Your task to perform on an android device: Go to Yahoo.com Image 0: 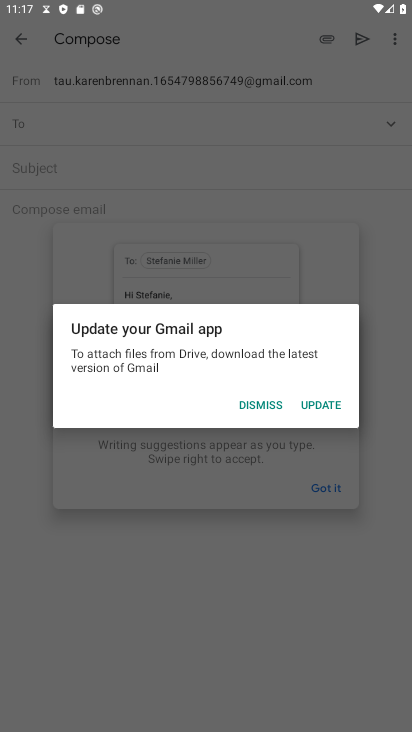
Step 0: press home button
Your task to perform on an android device: Go to Yahoo.com Image 1: 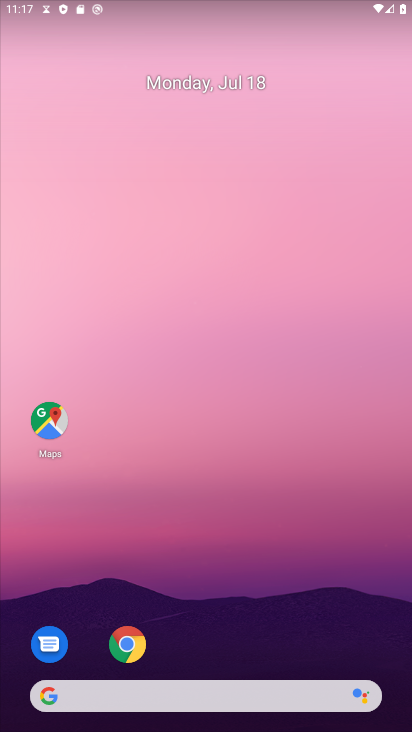
Step 1: drag from (194, 655) to (207, 196)
Your task to perform on an android device: Go to Yahoo.com Image 2: 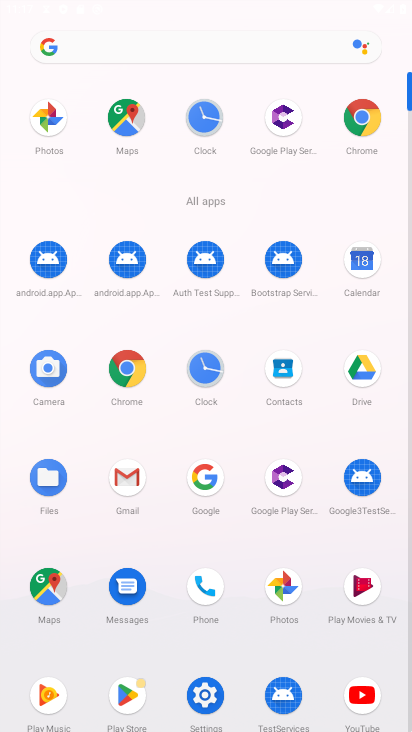
Step 2: click (130, 371)
Your task to perform on an android device: Go to Yahoo.com Image 3: 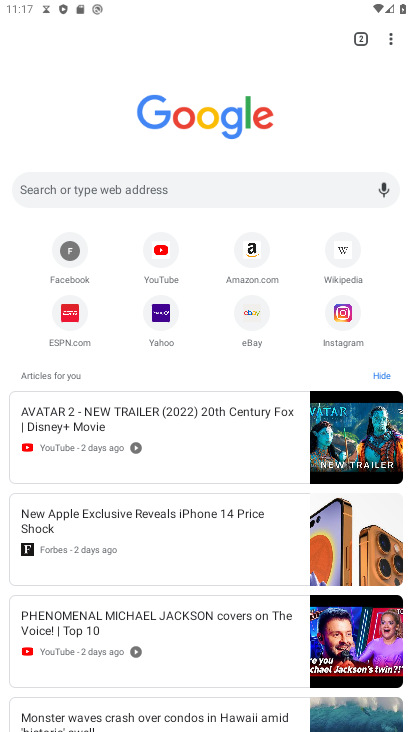
Step 3: click (171, 324)
Your task to perform on an android device: Go to Yahoo.com Image 4: 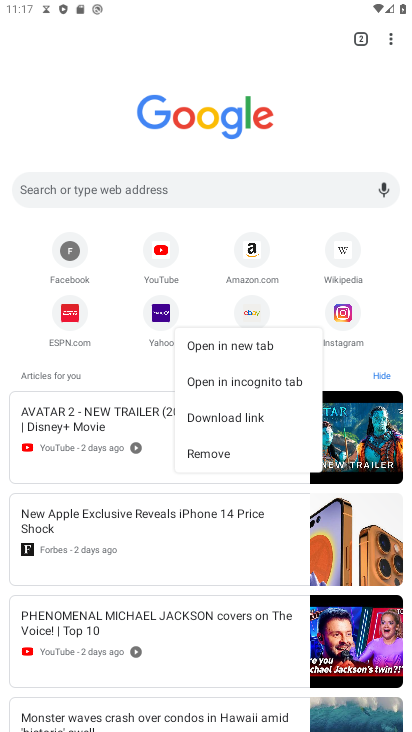
Step 4: click (161, 314)
Your task to perform on an android device: Go to Yahoo.com Image 5: 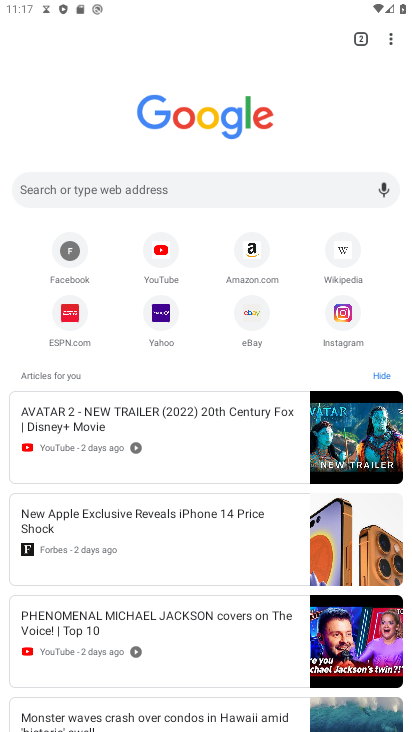
Step 5: click (158, 317)
Your task to perform on an android device: Go to Yahoo.com Image 6: 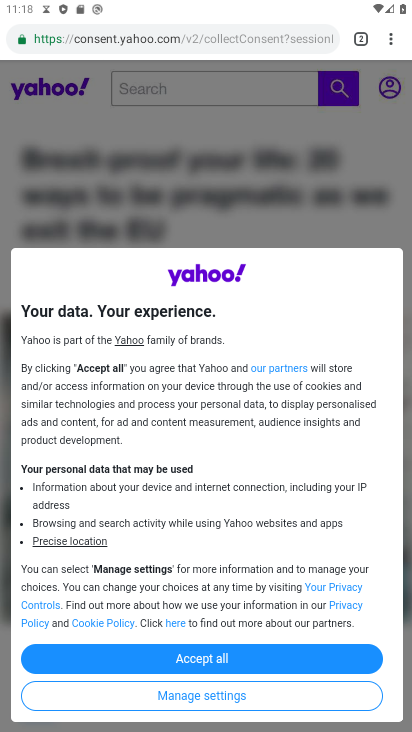
Step 6: click (234, 657)
Your task to perform on an android device: Go to Yahoo.com Image 7: 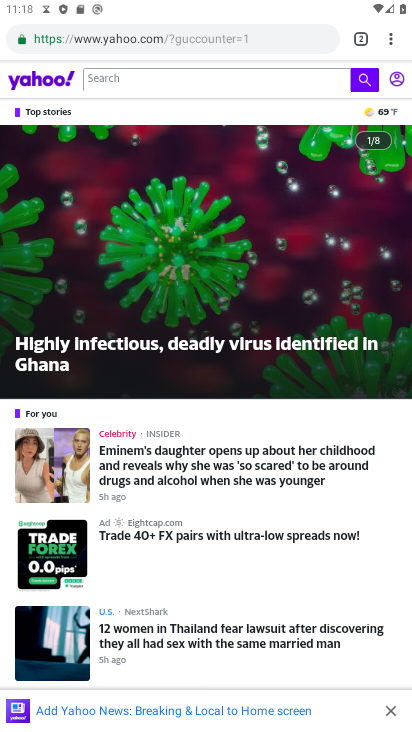
Step 7: task complete